Your task to perform on an android device: change the clock display to analog Image 0: 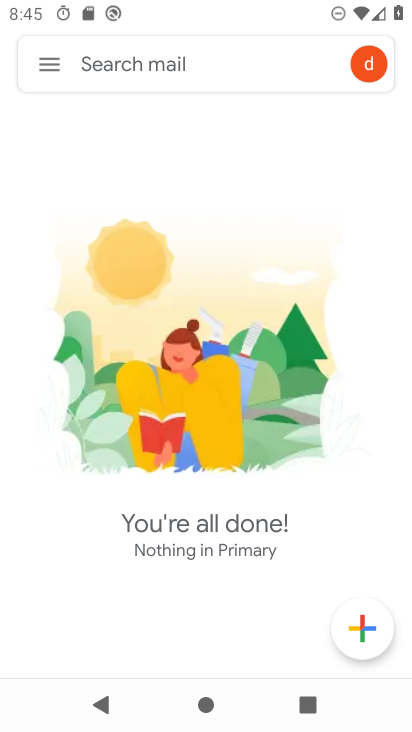
Step 0: press home button
Your task to perform on an android device: change the clock display to analog Image 1: 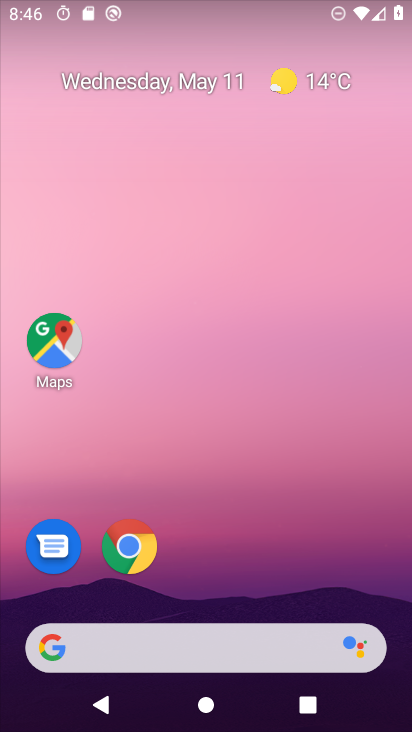
Step 1: drag from (210, 629) to (227, 201)
Your task to perform on an android device: change the clock display to analog Image 2: 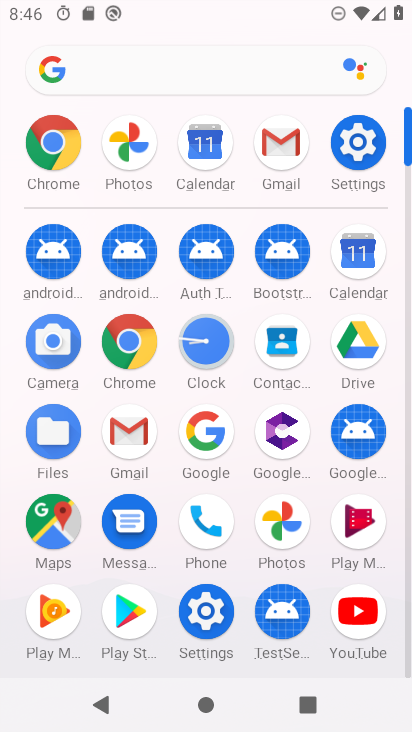
Step 2: click (201, 360)
Your task to perform on an android device: change the clock display to analog Image 3: 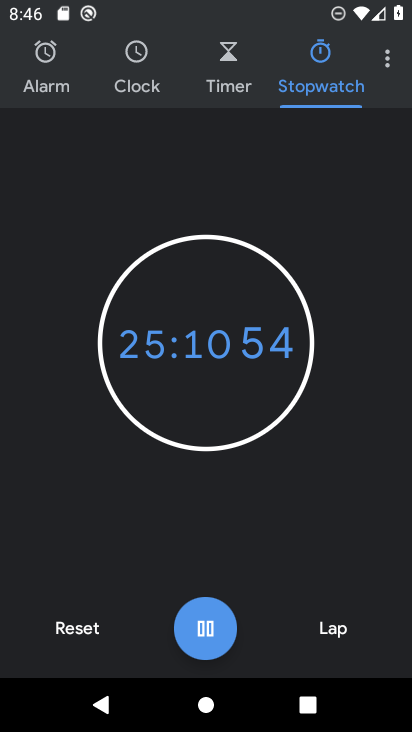
Step 3: click (368, 64)
Your task to perform on an android device: change the clock display to analog Image 4: 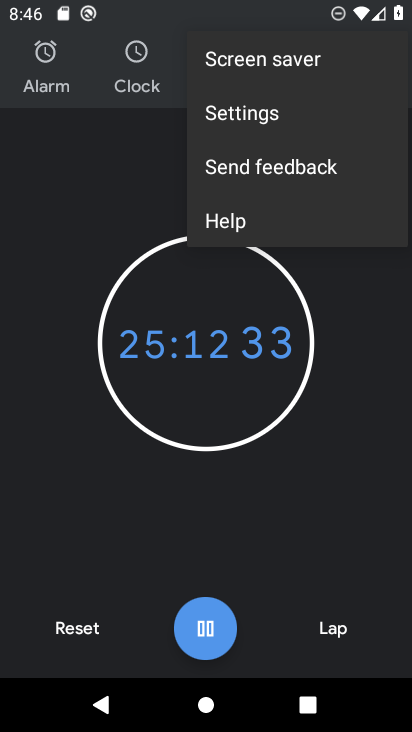
Step 4: click (215, 113)
Your task to perform on an android device: change the clock display to analog Image 5: 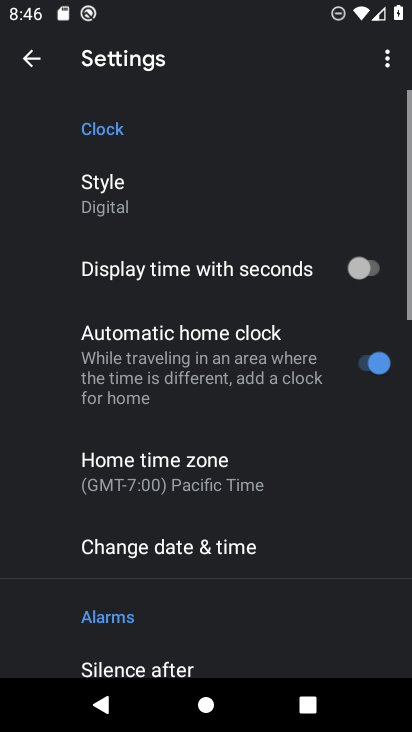
Step 5: click (105, 203)
Your task to perform on an android device: change the clock display to analog Image 6: 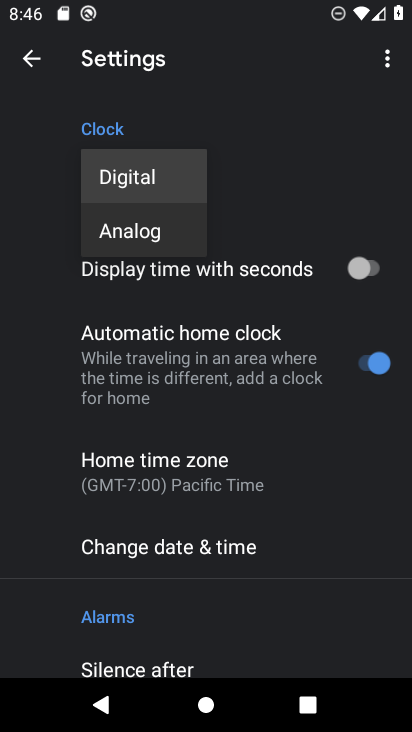
Step 6: click (168, 237)
Your task to perform on an android device: change the clock display to analog Image 7: 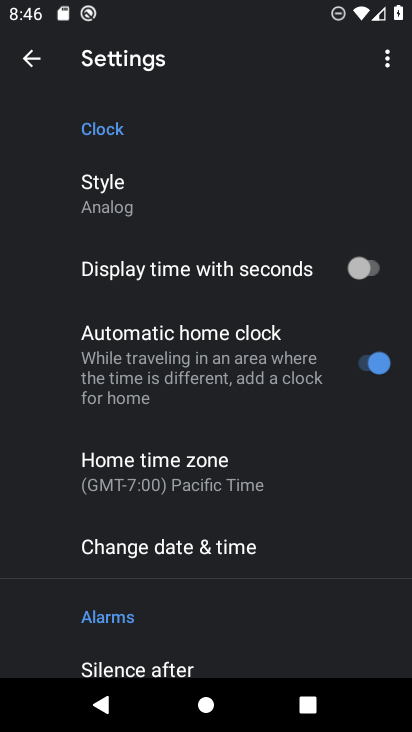
Step 7: task complete